Your task to perform on an android device: Open the calendar app, open the side menu, and click the "Day" option Image 0: 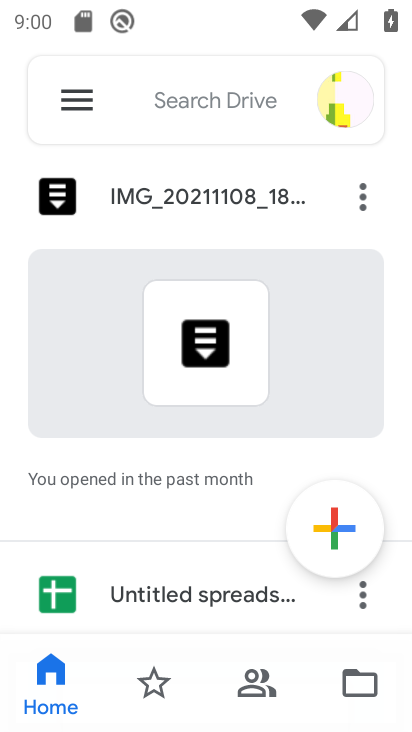
Step 0: press home button
Your task to perform on an android device: Open the calendar app, open the side menu, and click the "Day" option Image 1: 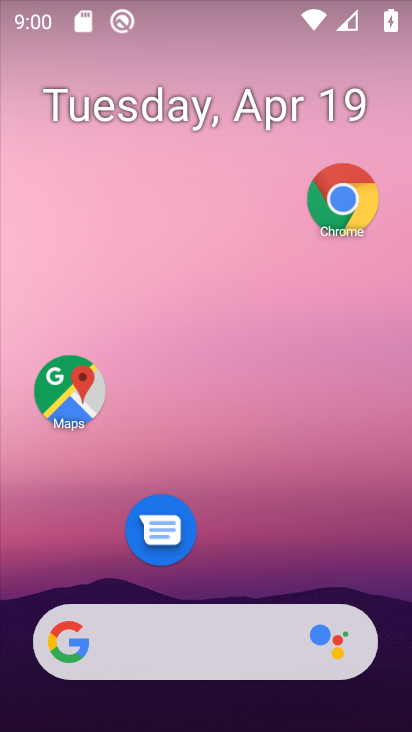
Step 1: drag from (215, 594) to (267, 72)
Your task to perform on an android device: Open the calendar app, open the side menu, and click the "Day" option Image 2: 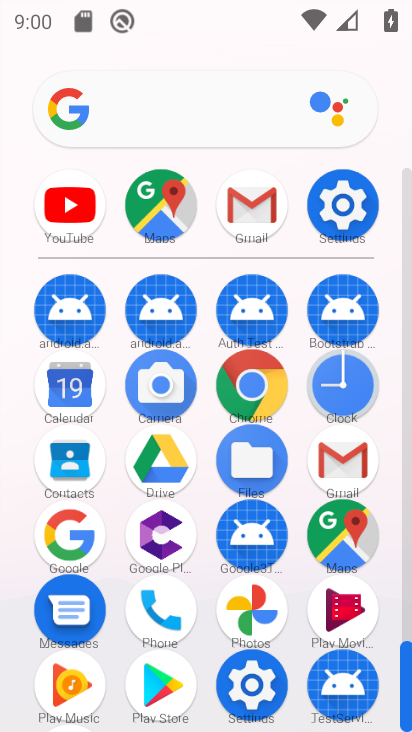
Step 2: click (66, 378)
Your task to perform on an android device: Open the calendar app, open the side menu, and click the "Day" option Image 3: 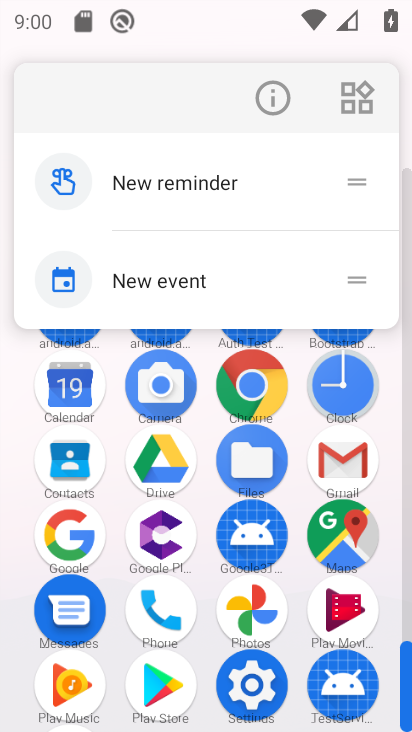
Step 3: click (292, 87)
Your task to perform on an android device: Open the calendar app, open the side menu, and click the "Day" option Image 4: 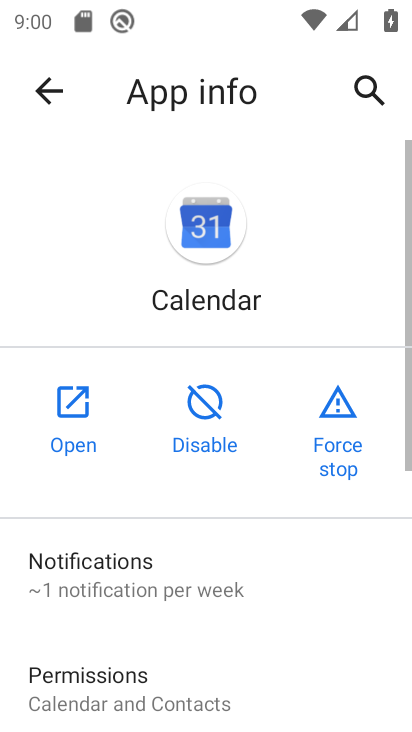
Step 4: click (68, 424)
Your task to perform on an android device: Open the calendar app, open the side menu, and click the "Day" option Image 5: 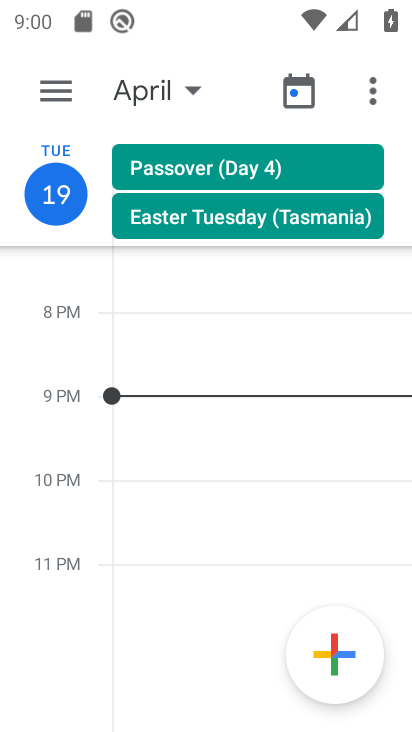
Step 5: click (40, 95)
Your task to perform on an android device: Open the calendar app, open the side menu, and click the "Day" option Image 6: 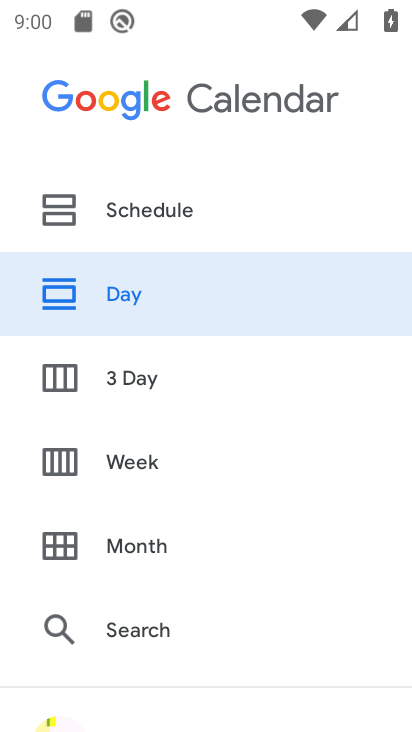
Step 6: click (157, 304)
Your task to perform on an android device: Open the calendar app, open the side menu, and click the "Day" option Image 7: 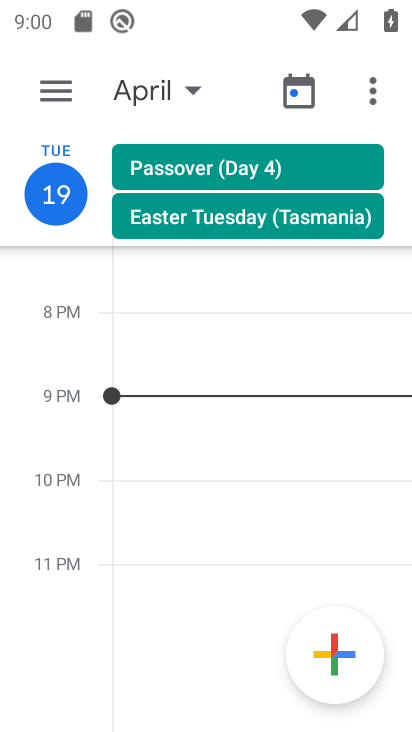
Step 7: task complete